Your task to perform on an android device: delete the emails in spam in the gmail app Image 0: 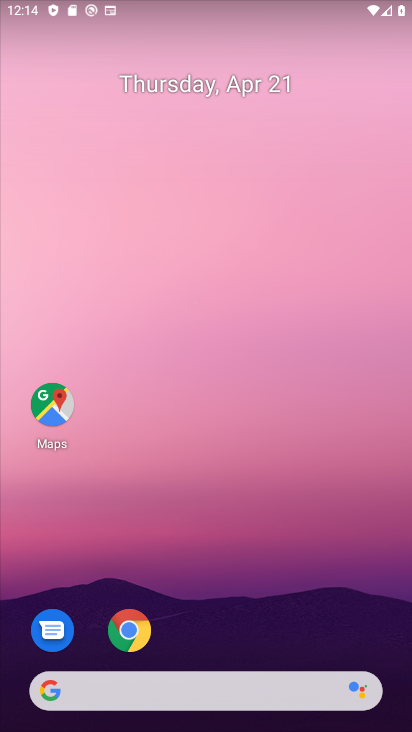
Step 0: drag from (212, 564) to (247, 96)
Your task to perform on an android device: delete the emails in spam in the gmail app Image 1: 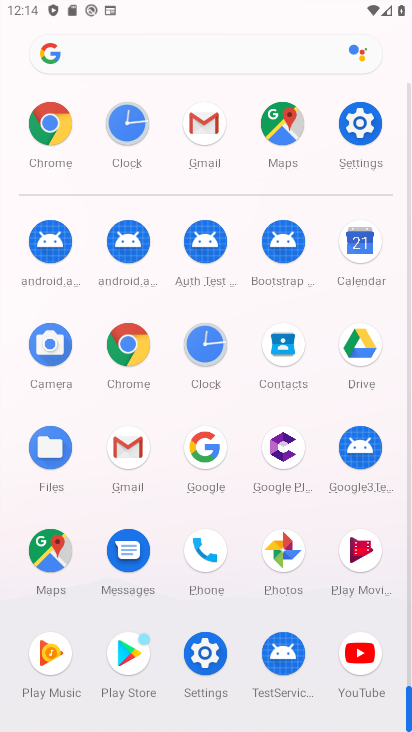
Step 1: click (220, 120)
Your task to perform on an android device: delete the emails in spam in the gmail app Image 2: 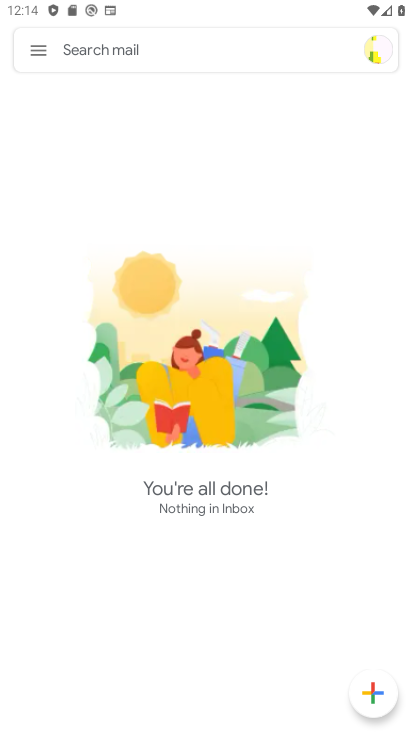
Step 2: drag from (70, 20) to (44, 48)
Your task to perform on an android device: delete the emails in spam in the gmail app Image 3: 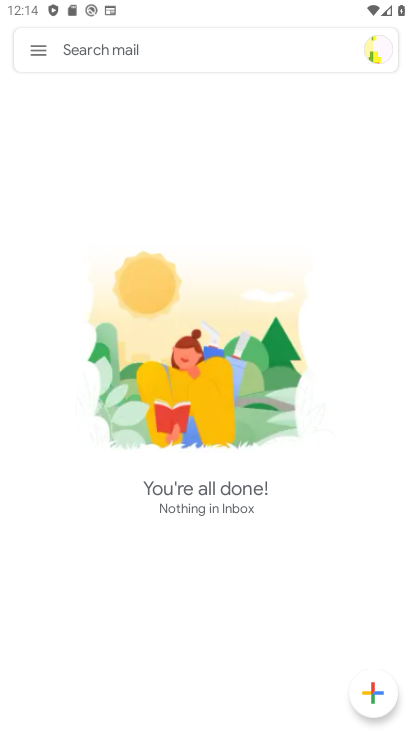
Step 3: click (50, 56)
Your task to perform on an android device: delete the emails in spam in the gmail app Image 4: 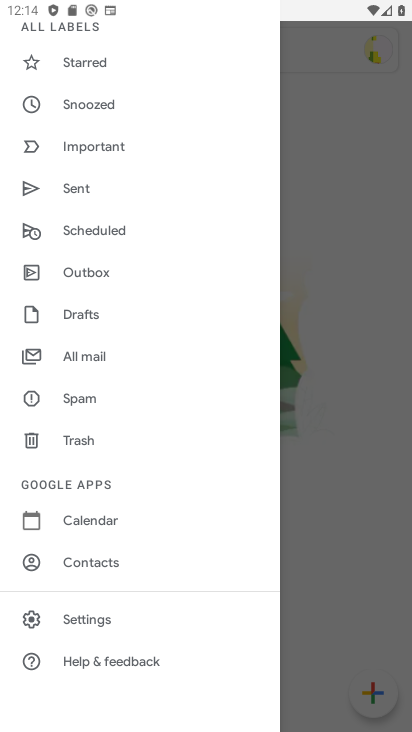
Step 4: click (82, 398)
Your task to perform on an android device: delete the emails in spam in the gmail app Image 5: 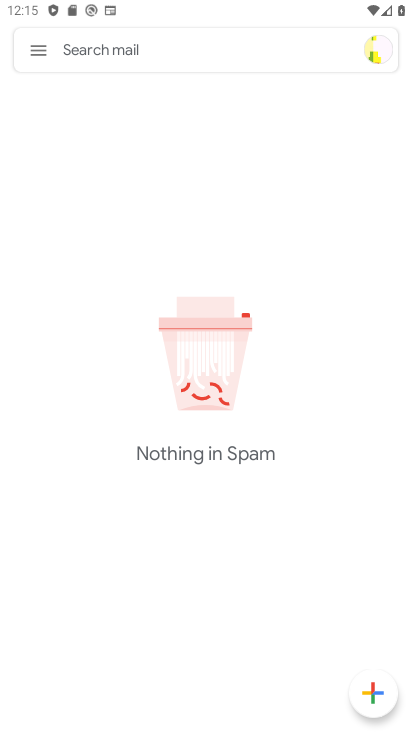
Step 5: task complete